Your task to perform on an android device: toggle priority inbox in the gmail app Image 0: 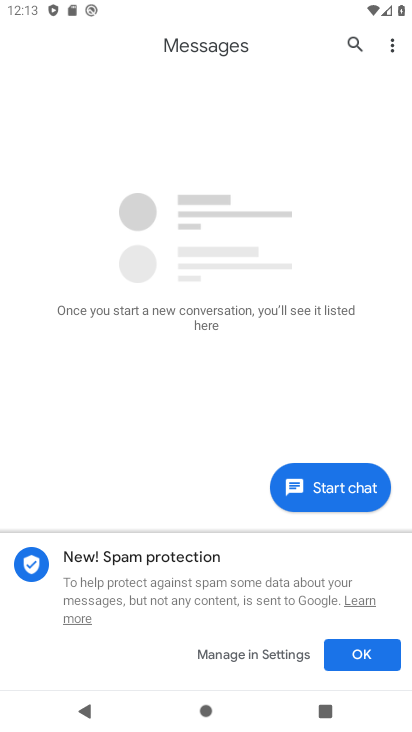
Step 0: press home button
Your task to perform on an android device: toggle priority inbox in the gmail app Image 1: 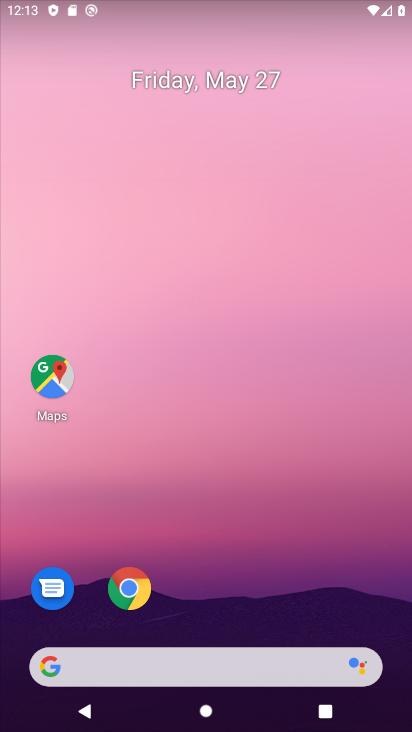
Step 1: drag from (217, 628) to (255, 37)
Your task to perform on an android device: toggle priority inbox in the gmail app Image 2: 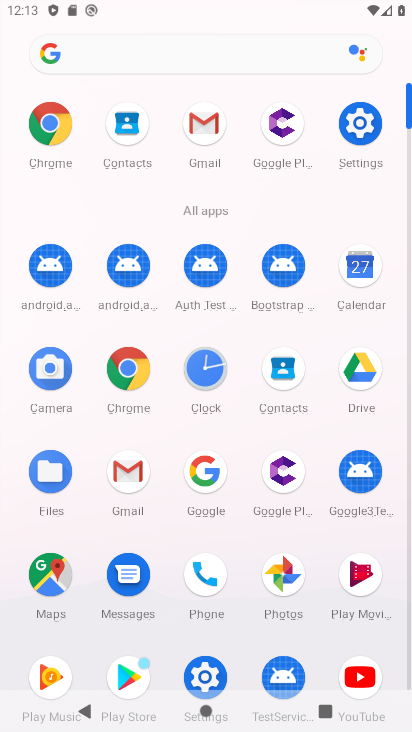
Step 2: click (129, 471)
Your task to perform on an android device: toggle priority inbox in the gmail app Image 3: 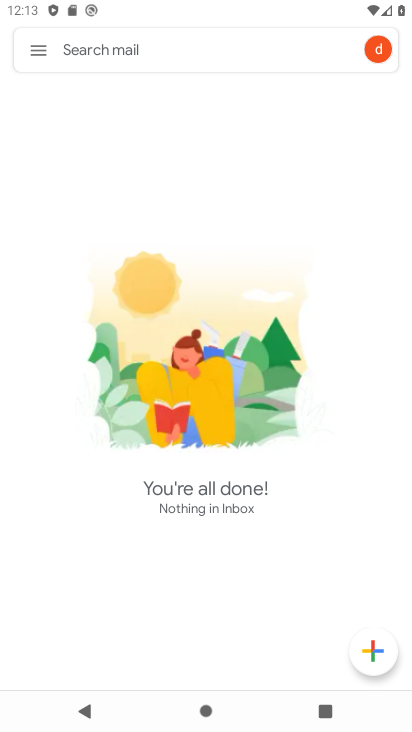
Step 3: click (36, 43)
Your task to perform on an android device: toggle priority inbox in the gmail app Image 4: 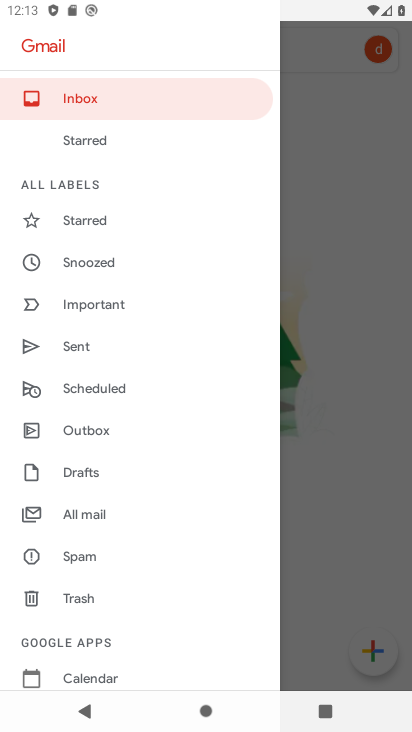
Step 4: drag from (143, 580) to (144, 146)
Your task to perform on an android device: toggle priority inbox in the gmail app Image 5: 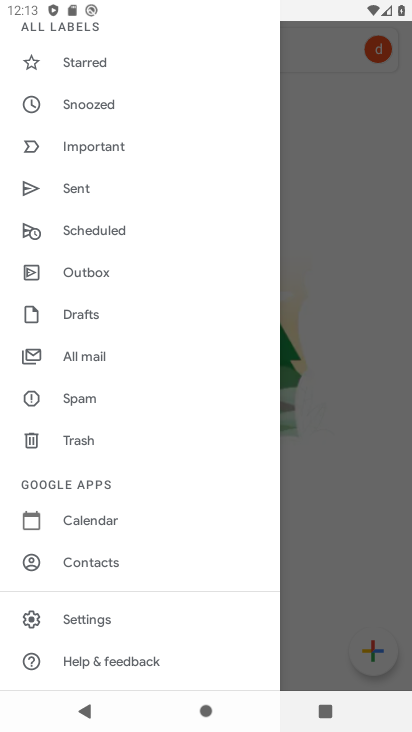
Step 5: click (124, 612)
Your task to perform on an android device: toggle priority inbox in the gmail app Image 6: 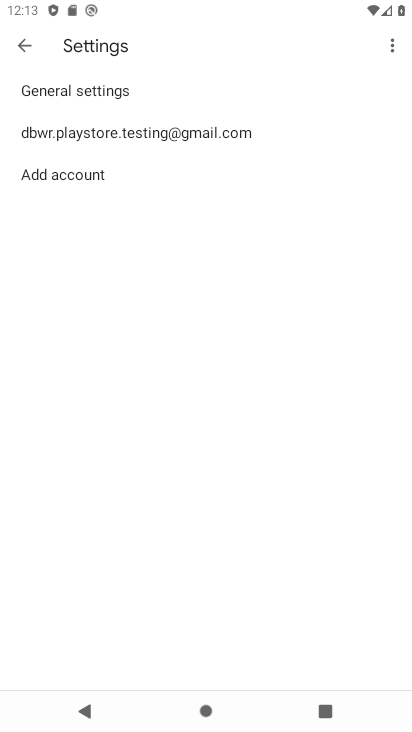
Step 6: click (286, 130)
Your task to perform on an android device: toggle priority inbox in the gmail app Image 7: 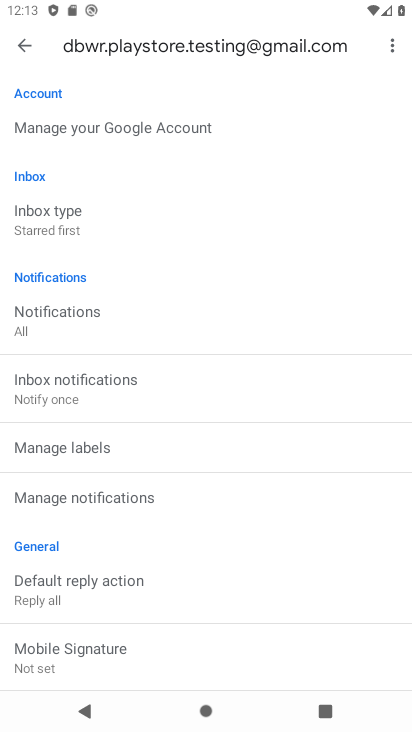
Step 7: click (100, 222)
Your task to perform on an android device: toggle priority inbox in the gmail app Image 8: 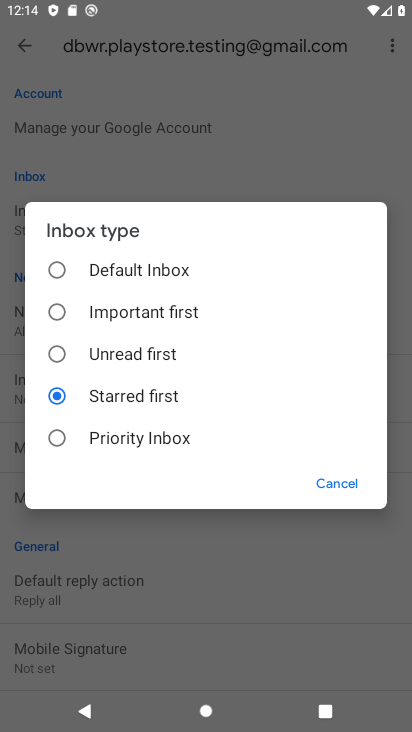
Step 8: click (55, 436)
Your task to perform on an android device: toggle priority inbox in the gmail app Image 9: 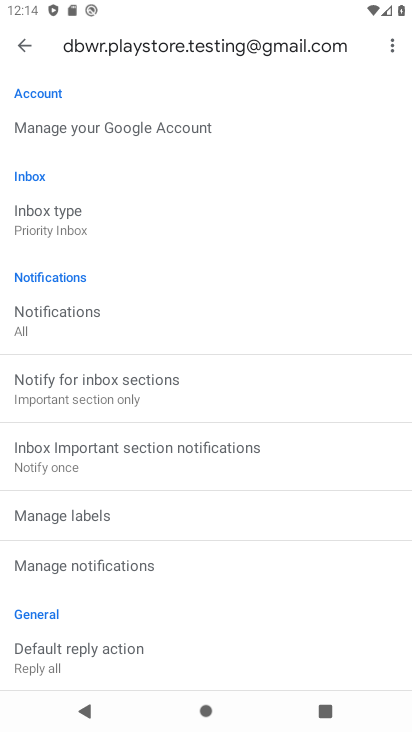
Step 9: task complete